Your task to perform on an android device: turn off javascript in the chrome app Image 0: 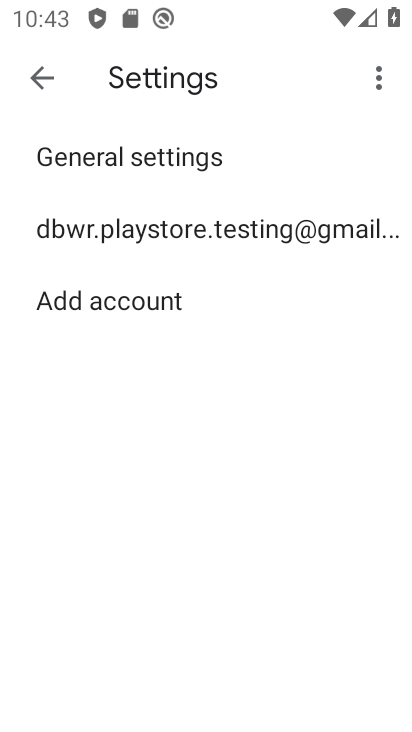
Step 0: press home button
Your task to perform on an android device: turn off javascript in the chrome app Image 1: 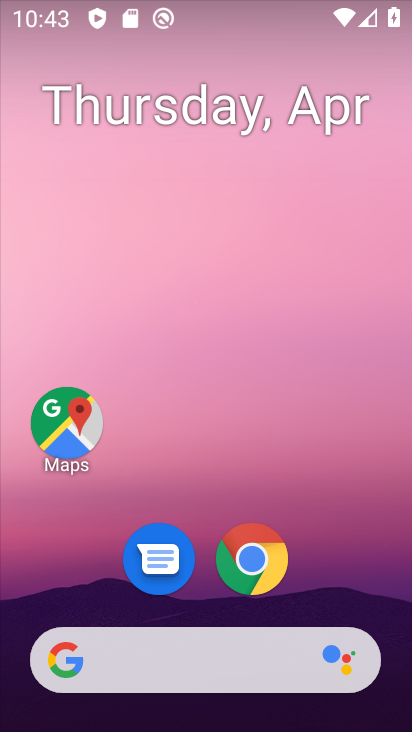
Step 1: drag from (240, 696) to (183, 151)
Your task to perform on an android device: turn off javascript in the chrome app Image 2: 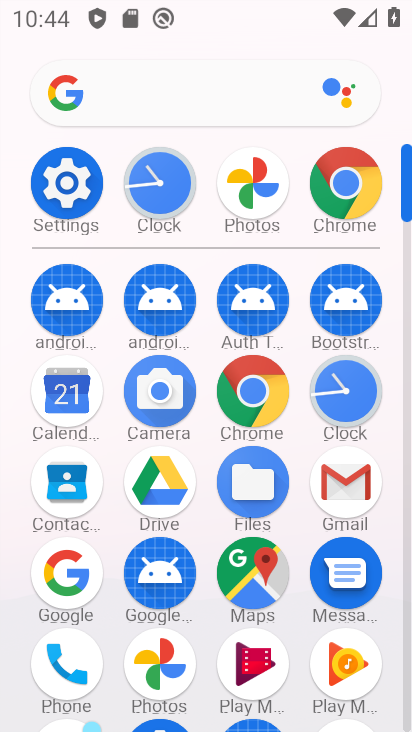
Step 2: click (349, 180)
Your task to perform on an android device: turn off javascript in the chrome app Image 3: 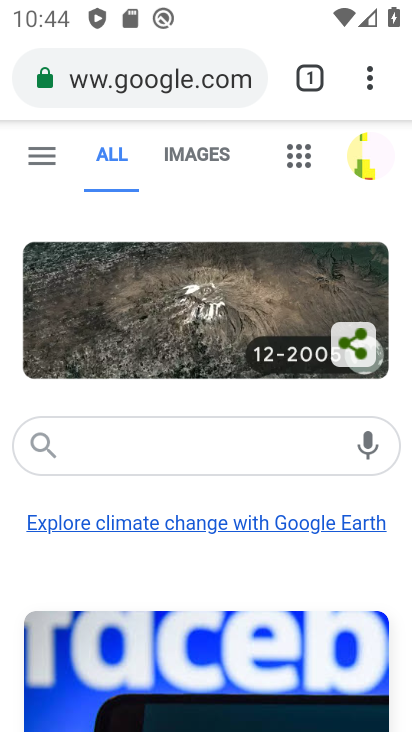
Step 3: click (366, 84)
Your task to perform on an android device: turn off javascript in the chrome app Image 4: 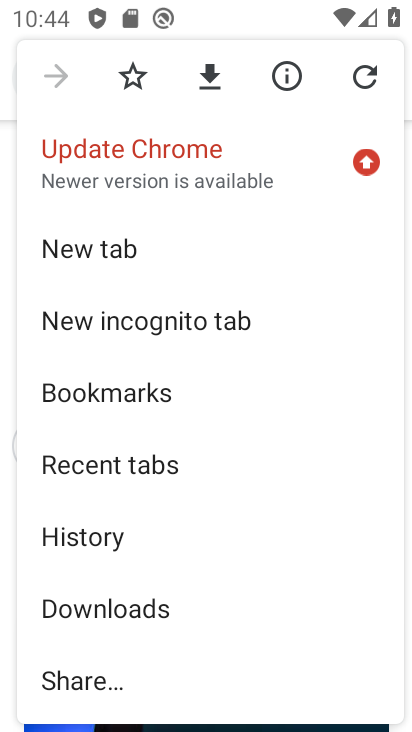
Step 4: drag from (157, 547) to (208, 378)
Your task to perform on an android device: turn off javascript in the chrome app Image 5: 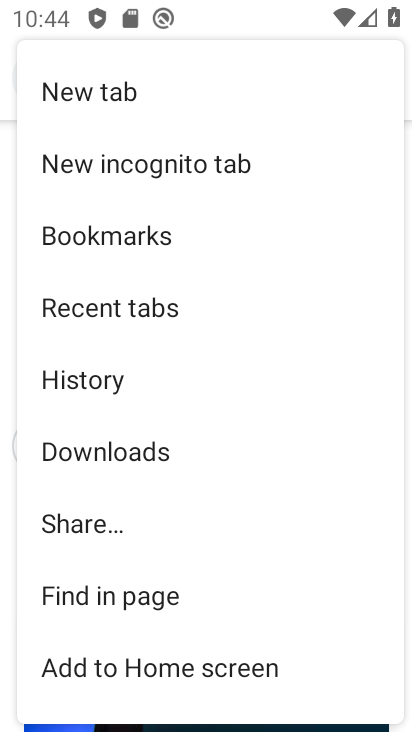
Step 5: drag from (166, 558) to (230, 312)
Your task to perform on an android device: turn off javascript in the chrome app Image 6: 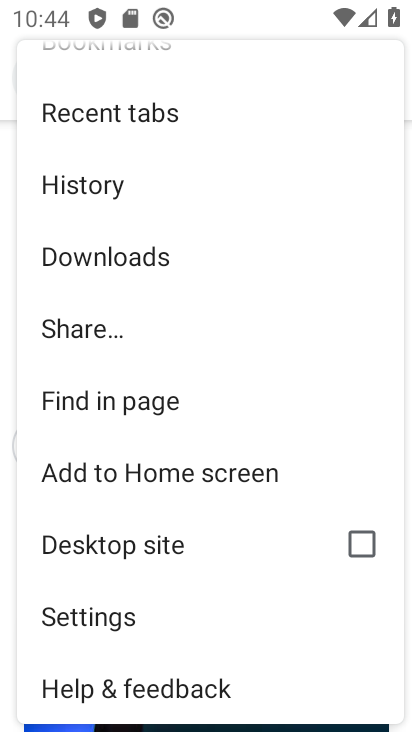
Step 6: click (114, 614)
Your task to perform on an android device: turn off javascript in the chrome app Image 7: 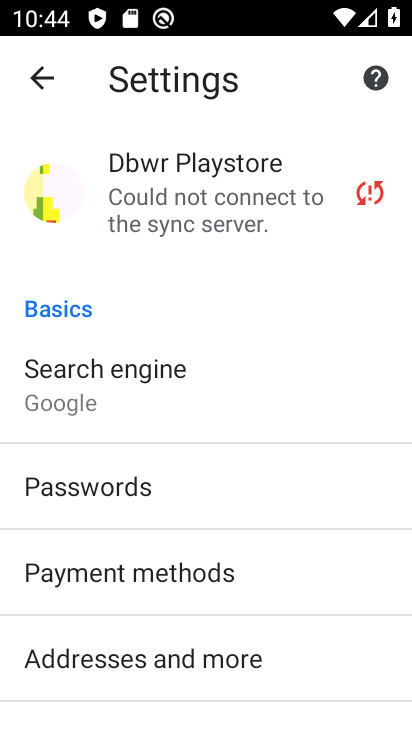
Step 7: drag from (130, 596) to (197, 343)
Your task to perform on an android device: turn off javascript in the chrome app Image 8: 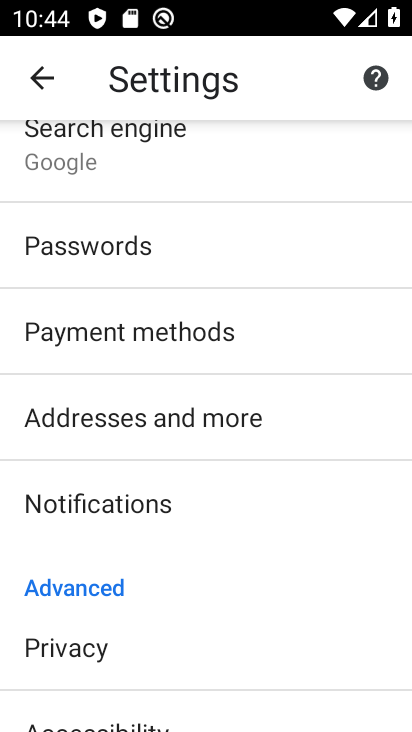
Step 8: drag from (159, 561) to (175, 438)
Your task to perform on an android device: turn off javascript in the chrome app Image 9: 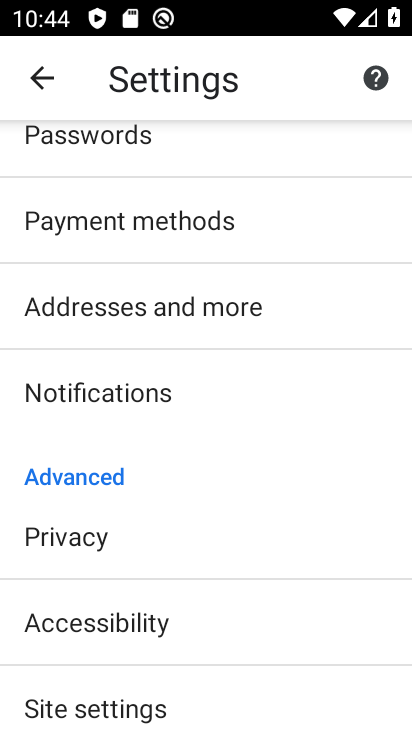
Step 9: click (91, 698)
Your task to perform on an android device: turn off javascript in the chrome app Image 10: 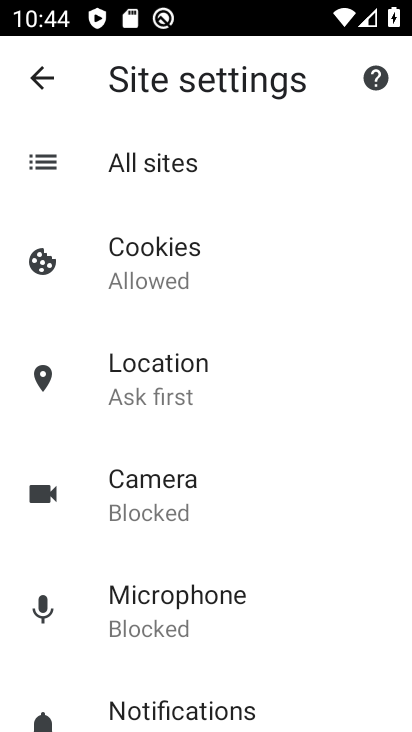
Step 10: drag from (223, 574) to (256, 293)
Your task to perform on an android device: turn off javascript in the chrome app Image 11: 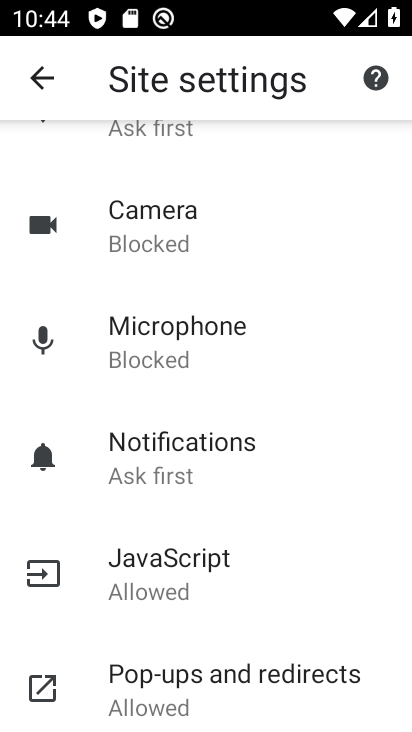
Step 11: click (182, 583)
Your task to perform on an android device: turn off javascript in the chrome app Image 12: 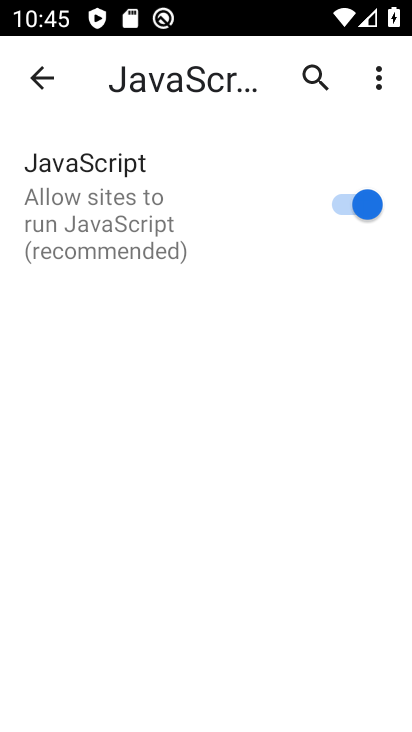
Step 12: click (355, 207)
Your task to perform on an android device: turn off javascript in the chrome app Image 13: 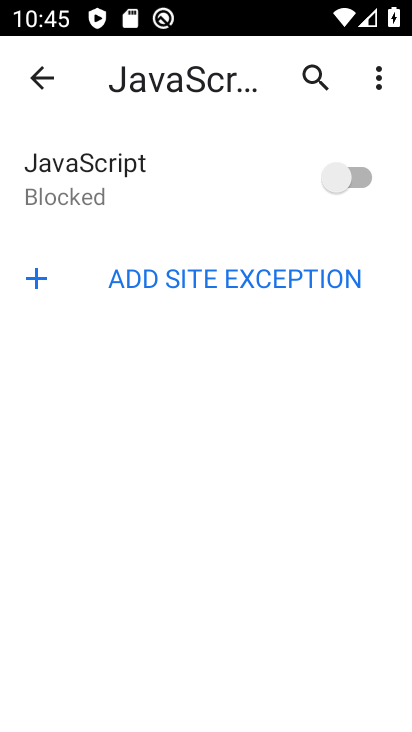
Step 13: task complete